Your task to perform on an android device: Open Reddit.com Image 0: 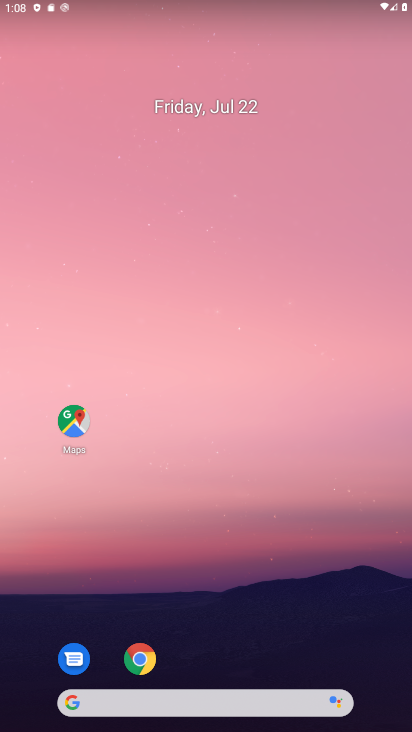
Step 0: click (134, 666)
Your task to perform on an android device: Open Reddit.com Image 1: 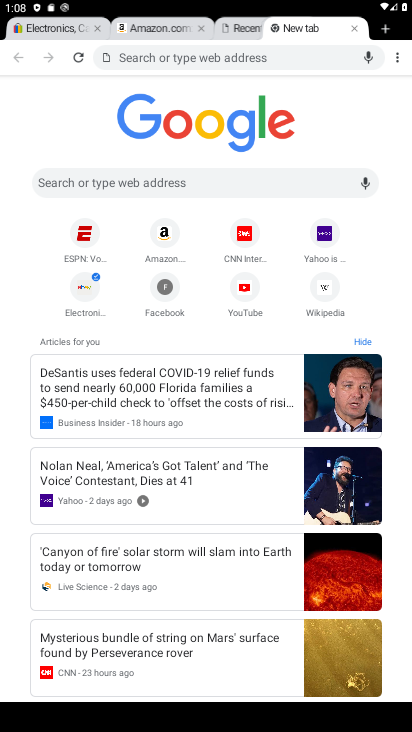
Step 1: click (314, 50)
Your task to perform on an android device: Open Reddit.com Image 2: 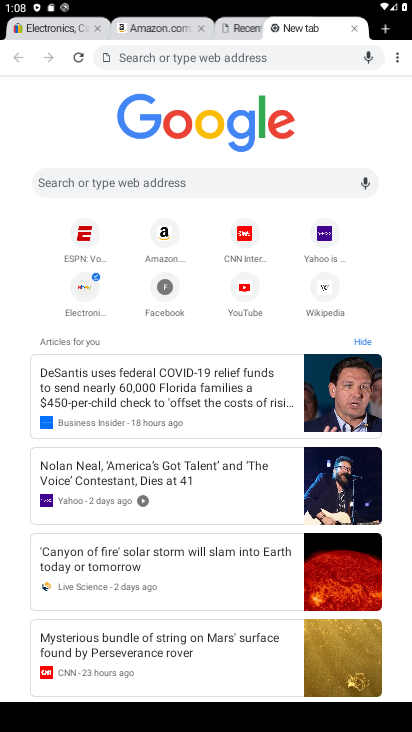
Step 2: type "reddit.com"
Your task to perform on an android device: Open Reddit.com Image 3: 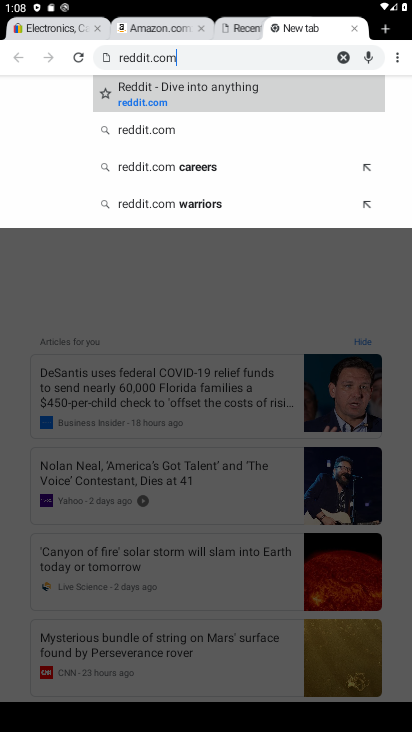
Step 3: click (226, 87)
Your task to perform on an android device: Open Reddit.com Image 4: 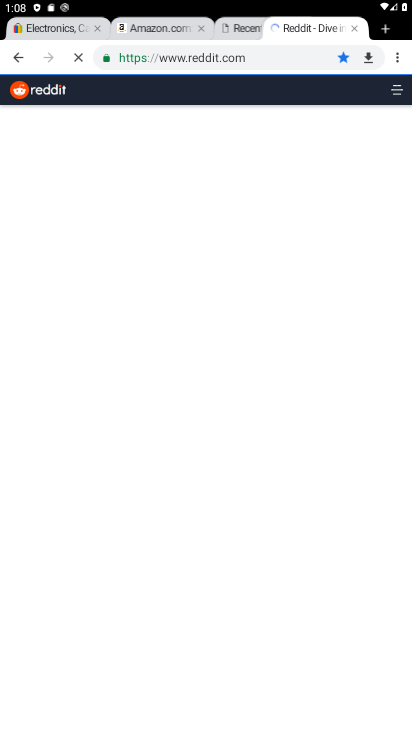
Step 4: task complete